Your task to perform on an android device: set default search engine in the chrome app Image 0: 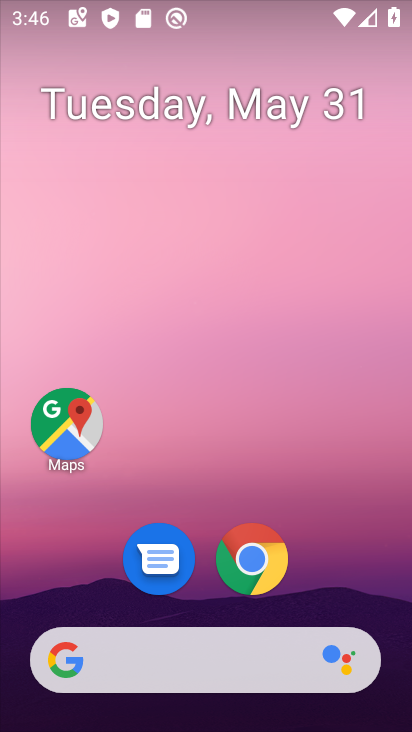
Step 0: click (248, 563)
Your task to perform on an android device: set default search engine in the chrome app Image 1: 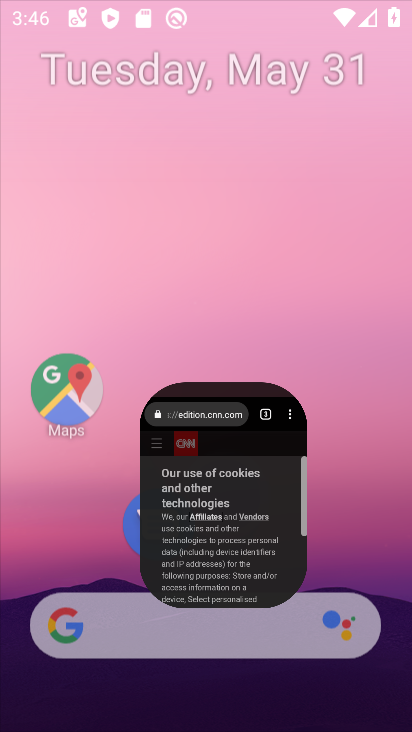
Step 1: click (248, 563)
Your task to perform on an android device: set default search engine in the chrome app Image 2: 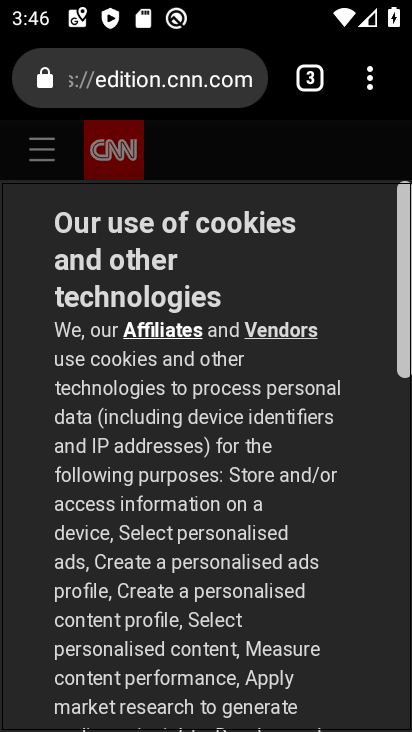
Step 2: click (370, 88)
Your task to perform on an android device: set default search engine in the chrome app Image 3: 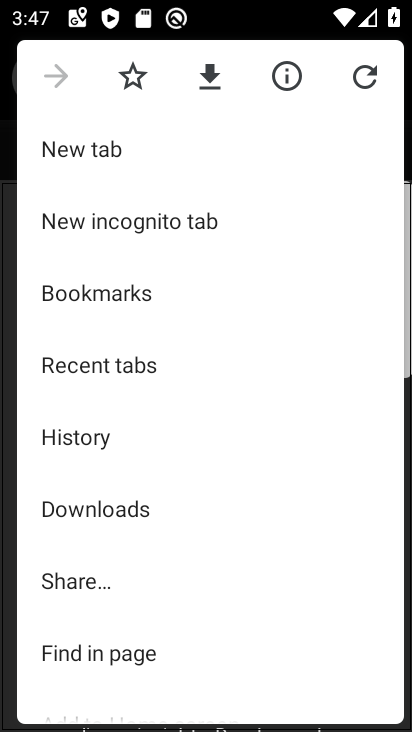
Step 3: drag from (92, 666) to (85, 286)
Your task to perform on an android device: set default search engine in the chrome app Image 4: 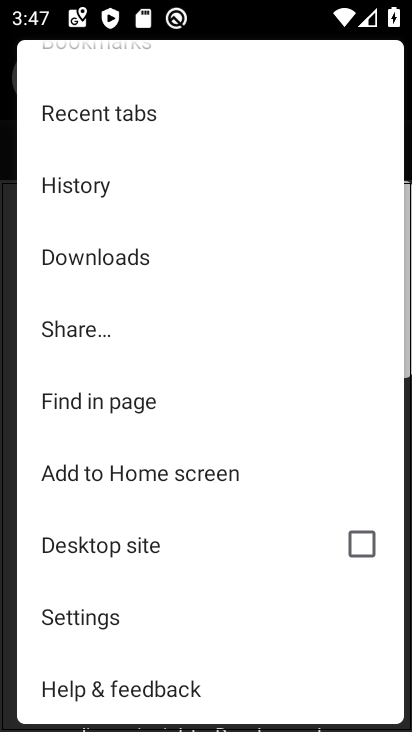
Step 4: click (72, 611)
Your task to perform on an android device: set default search engine in the chrome app Image 5: 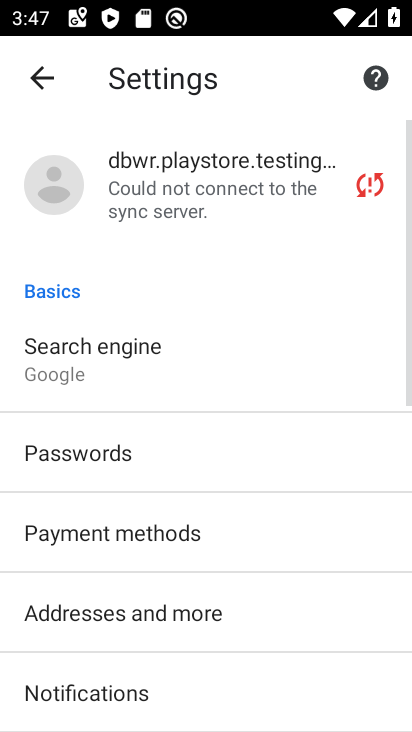
Step 5: drag from (178, 704) to (170, 386)
Your task to perform on an android device: set default search engine in the chrome app Image 6: 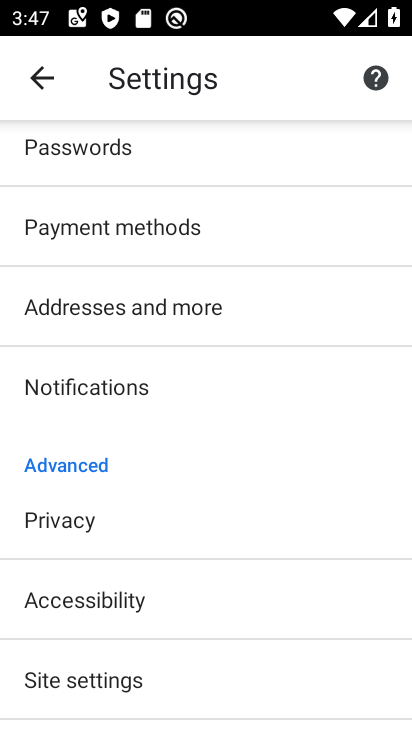
Step 6: drag from (222, 156) to (217, 642)
Your task to perform on an android device: set default search engine in the chrome app Image 7: 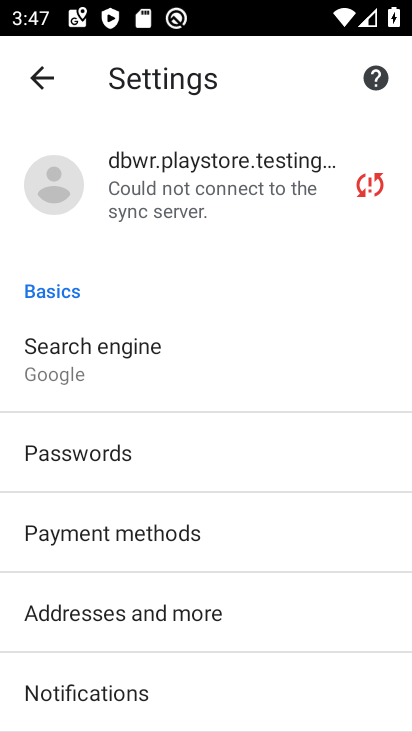
Step 7: click (52, 357)
Your task to perform on an android device: set default search engine in the chrome app Image 8: 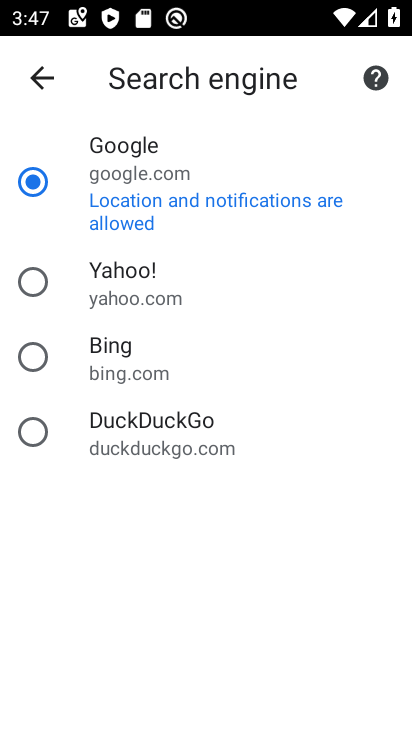
Step 8: click (37, 282)
Your task to perform on an android device: set default search engine in the chrome app Image 9: 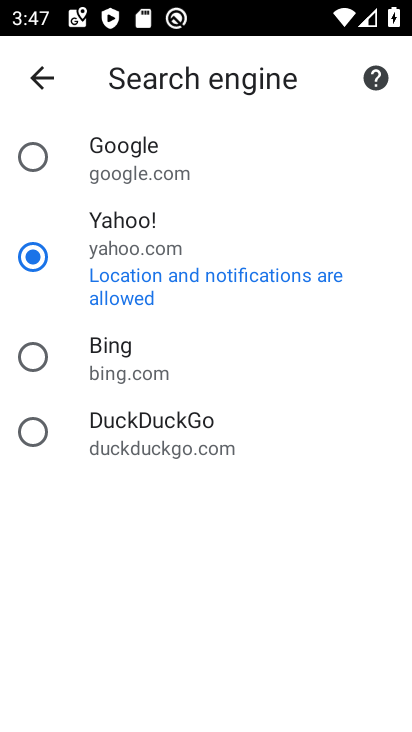
Step 9: task complete